Your task to perform on an android device: change the clock display to digital Image 0: 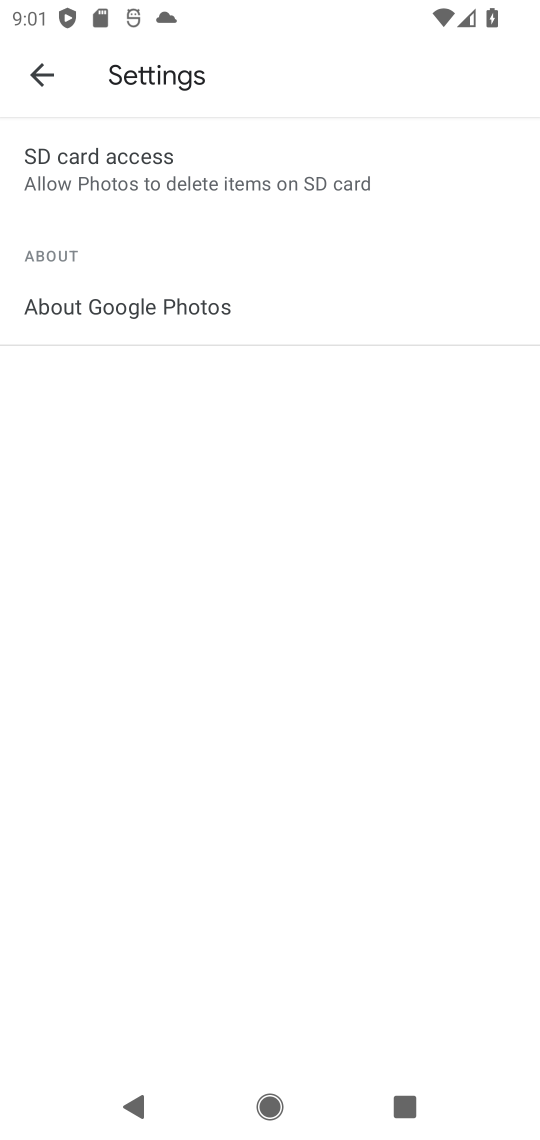
Step 0: press home button
Your task to perform on an android device: change the clock display to digital Image 1: 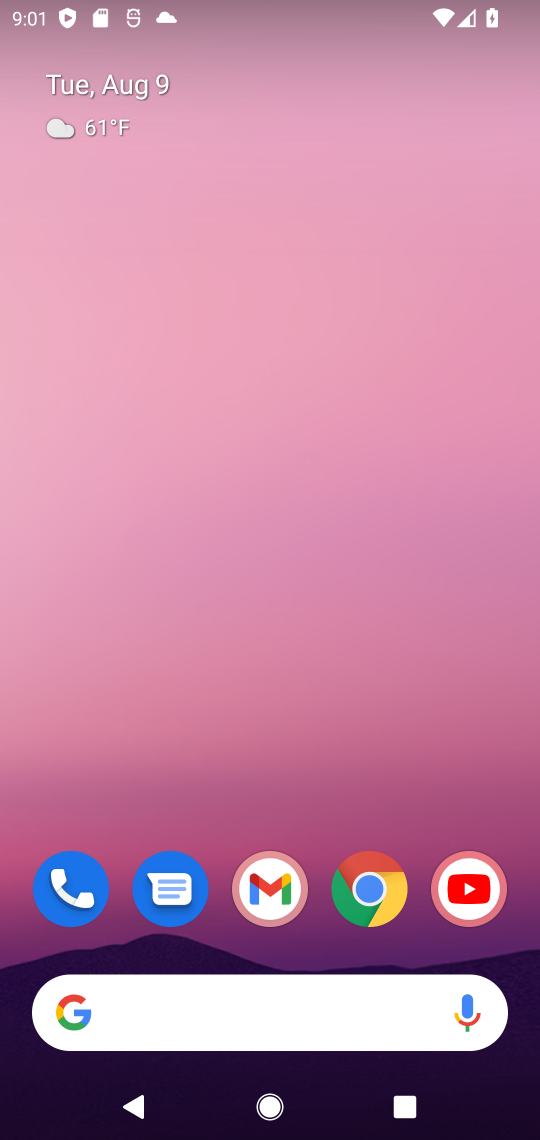
Step 1: drag from (210, 913) to (297, 55)
Your task to perform on an android device: change the clock display to digital Image 2: 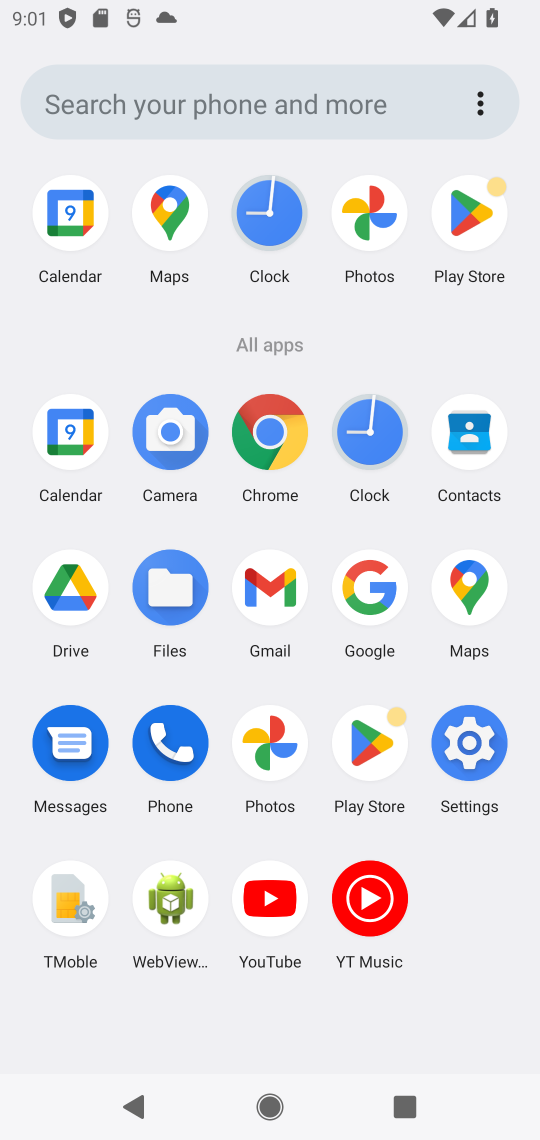
Step 2: click (370, 443)
Your task to perform on an android device: change the clock display to digital Image 3: 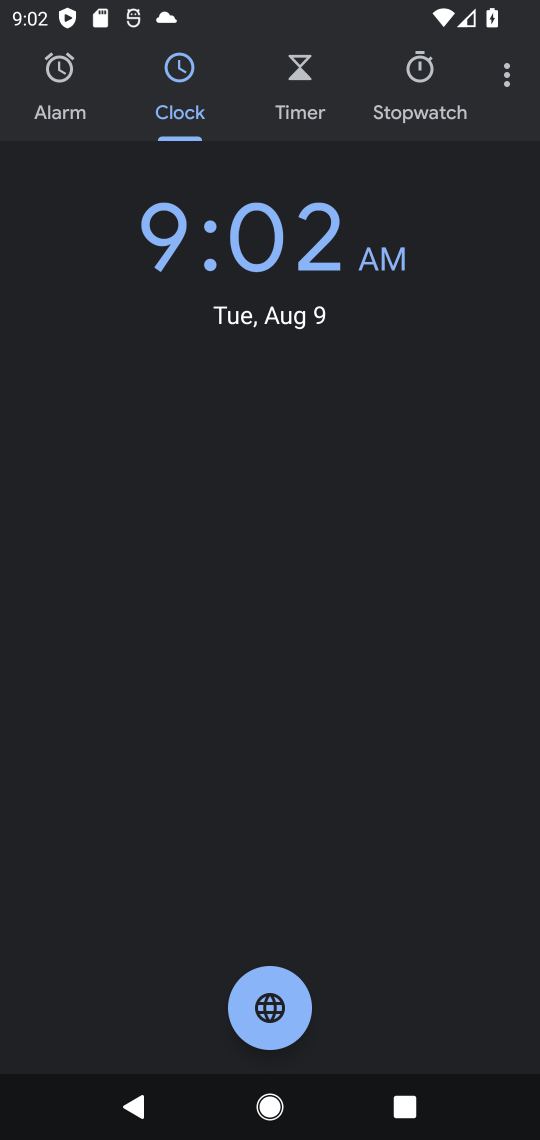
Step 3: click (510, 82)
Your task to perform on an android device: change the clock display to digital Image 4: 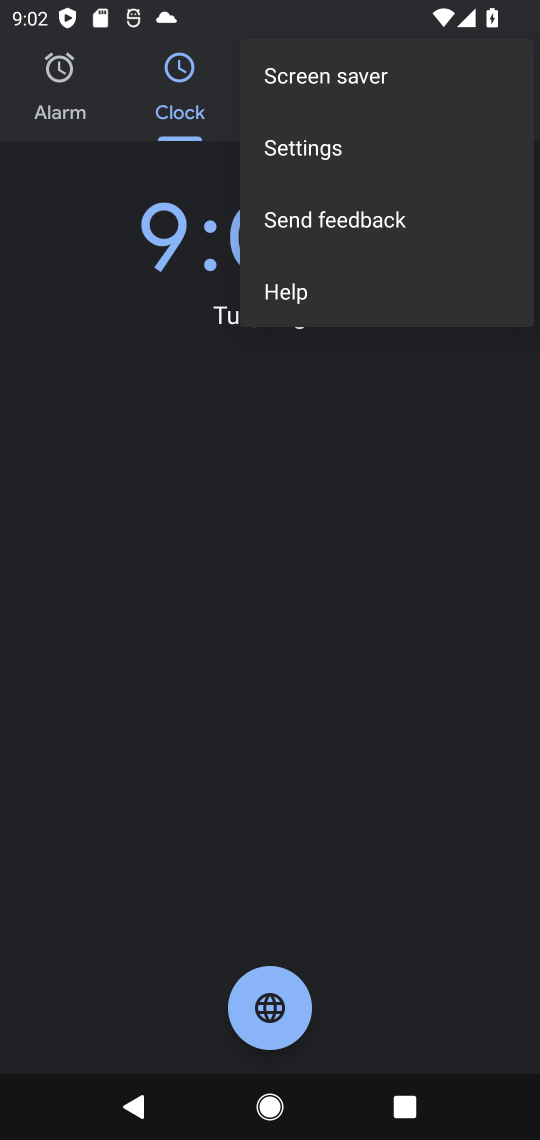
Step 4: click (329, 147)
Your task to perform on an android device: change the clock display to digital Image 5: 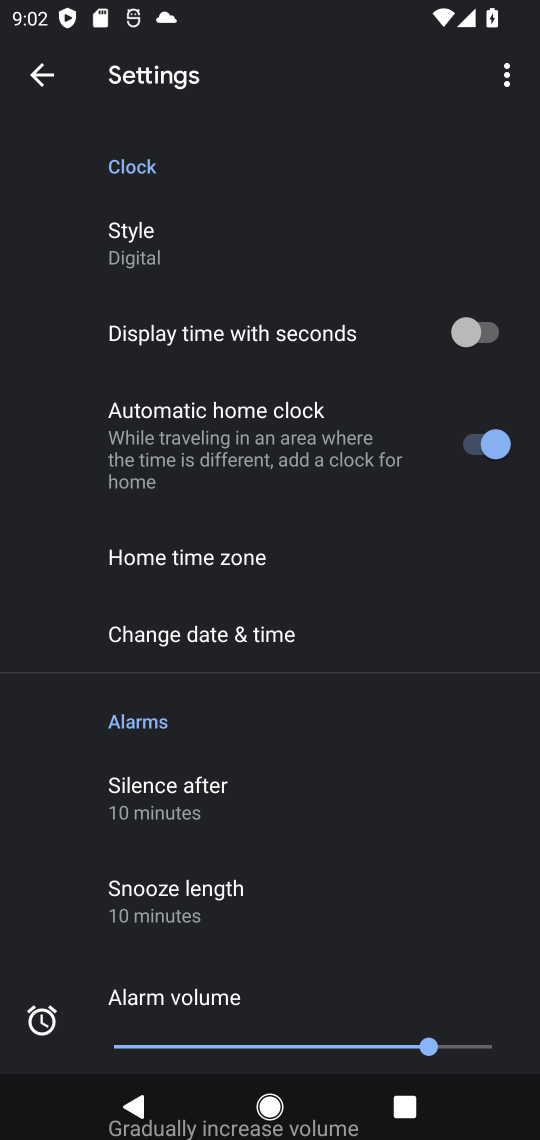
Step 5: task complete